Your task to perform on an android device: turn off notifications in google photos Image 0: 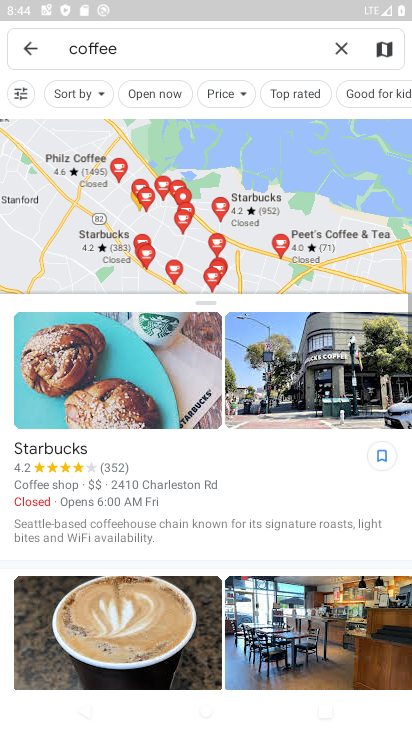
Step 0: press enter
Your task to perform on an android device: turn off notifications in google photos Image 1: 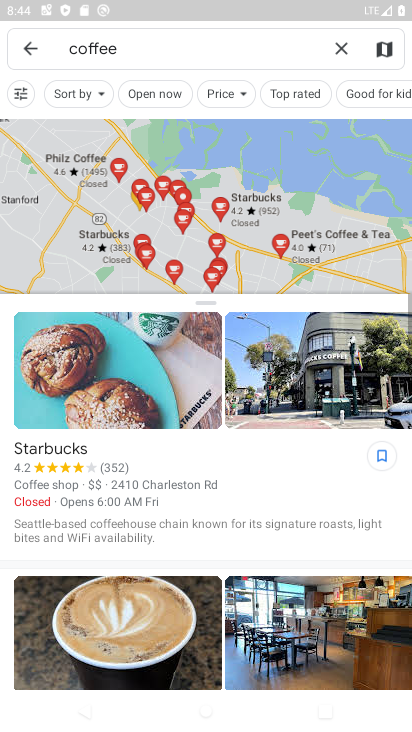
Step 1: press home button
Your task to perform on an android device: turn off notifications in google photos Image 2: 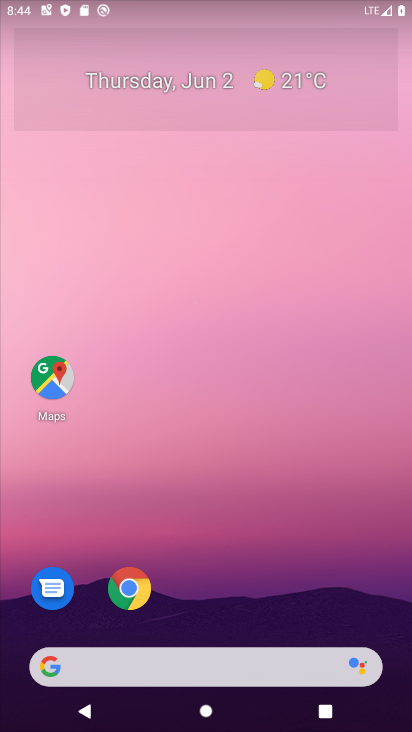
Step 2: drag from (242, 647) to (293, 88)
Your task to perform on an android device: turn off notifications in google photos Image 3: 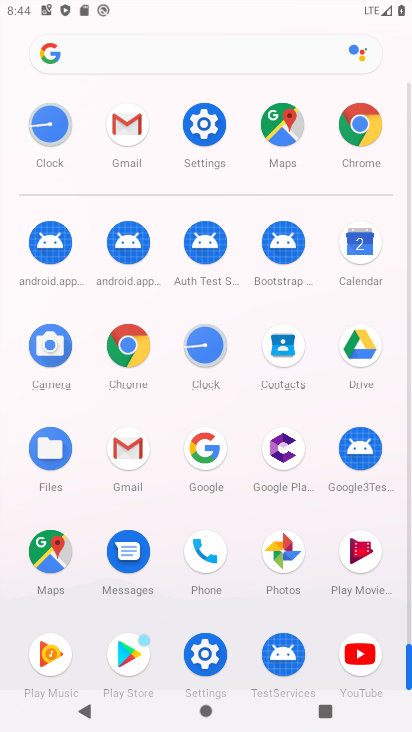
Step 3: drag from (235, 344) to (247, 179)
Your task to perform on an android device: turn off notifications in google photos Image 4: 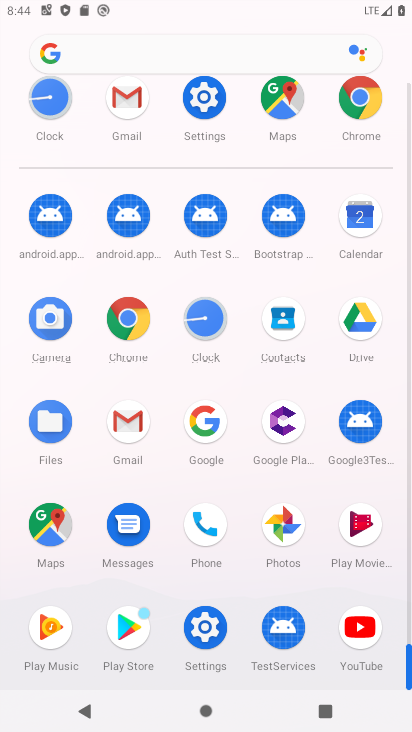
Step 4: click (294, 548)
Your task to perform on an android device: turn off notifications in google photos Image 5: 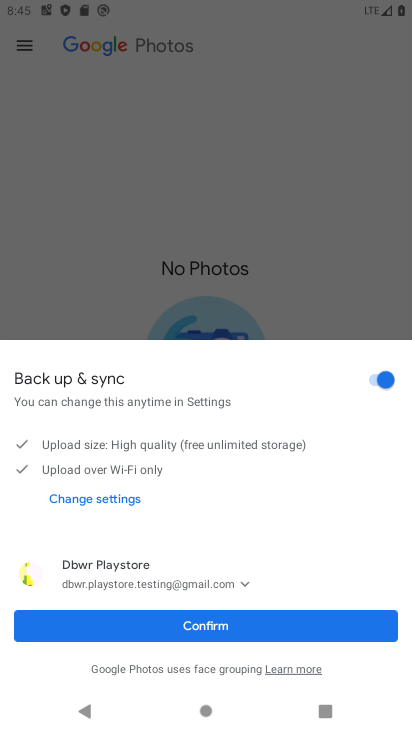
Step 5: click (277, 629)
Your task to perform on an android device: turn off notifications in google photos Image 6: 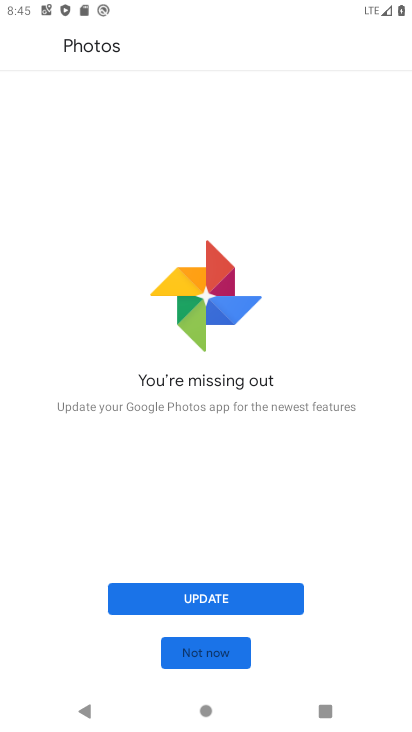
Step 6: click (228, 651)
Your task to perform on an android device: turn off notifications in google photos Image 7: 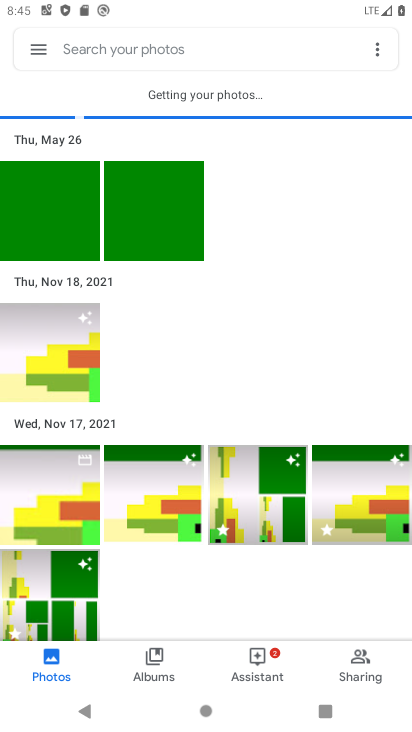
Step 7: click (36, 50)
Your task to perform on an android device: turn off notifications in google photos Image 8: 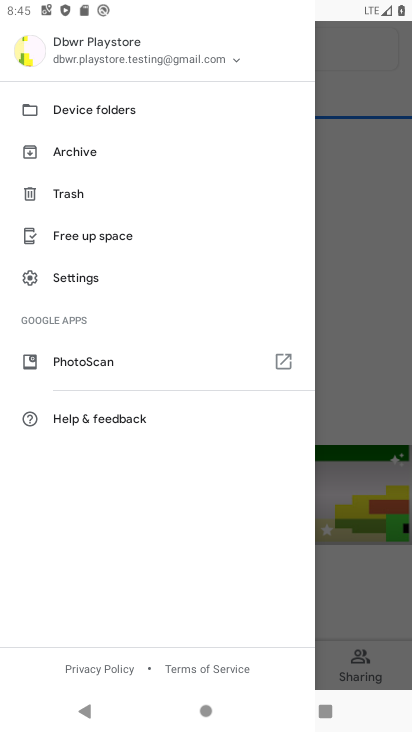
Step 8: click (74, 280)
Your task to perform on an android device: turn off notifications in google photos Image 9: 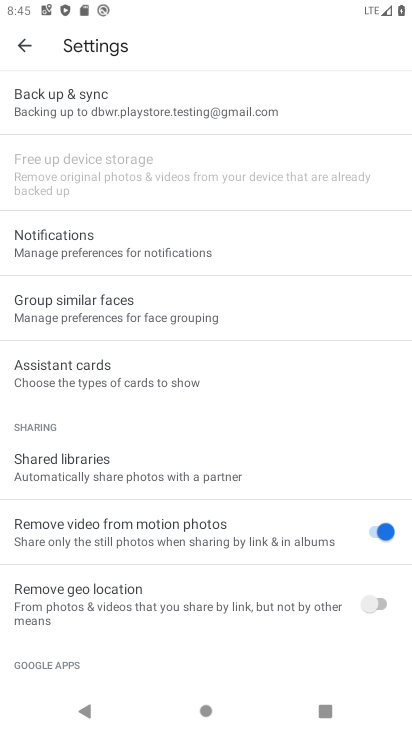
Step 9: click (82, 232)
Your task to perform on an android device: turn off notifications in google photos Image 10: 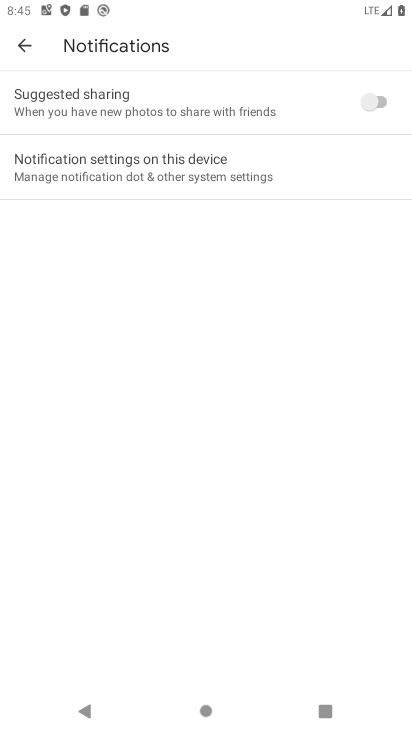
Step 10: click (199, 156)
Your task to perform on an android device: turn off notifications in google photos Image 11: 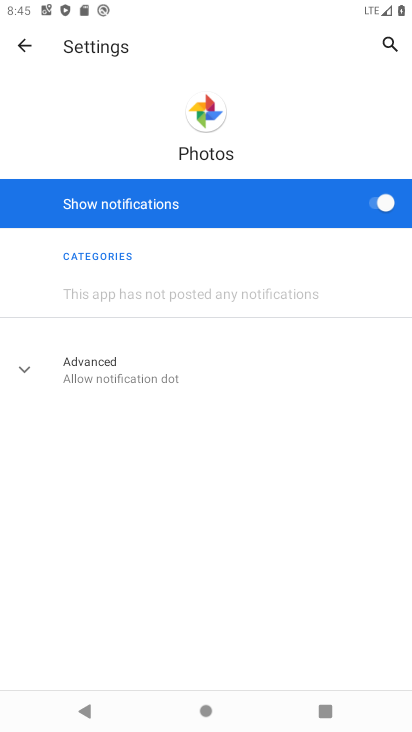
Step 11: click (391, 204)
Your task to perform on an android device: turn off notifications in google photos Image 12: 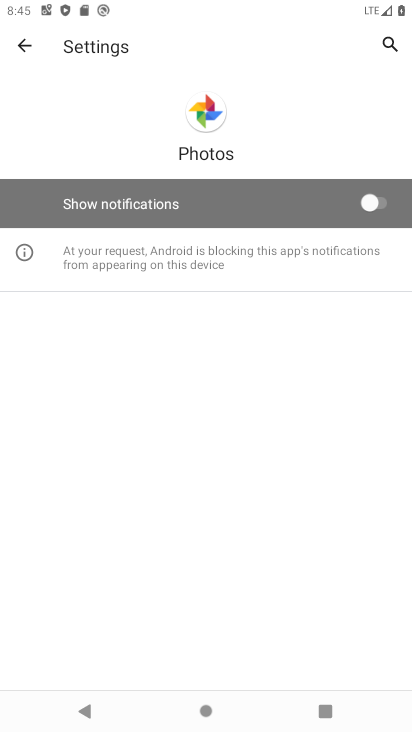
Step 12: task complete